Your task to perform on an android device: What is the recent news? Image 0: 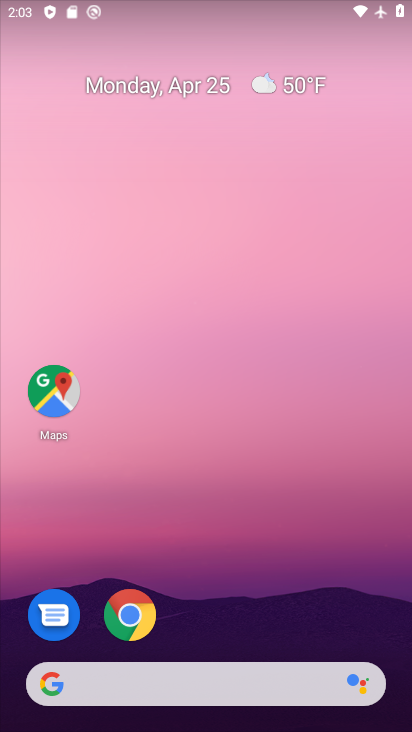
Step 0: drag from (250, 591) to (210, 3)
Your task to perform on an android device: What is the recent news? Image 1: 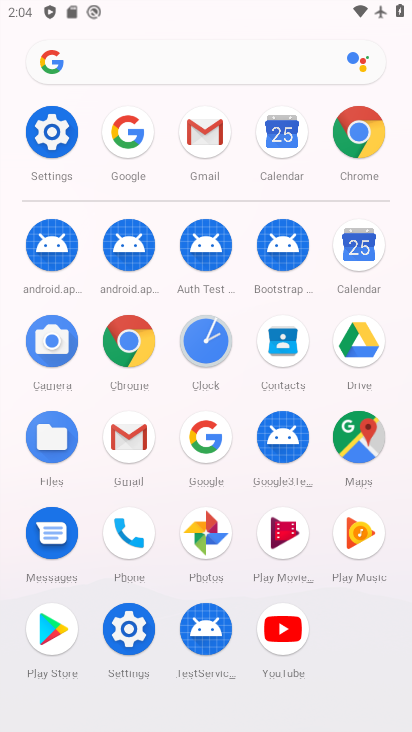
Step 1: click (126, 125)
Your task to perform on an android device: What is the recent news? Image 2: 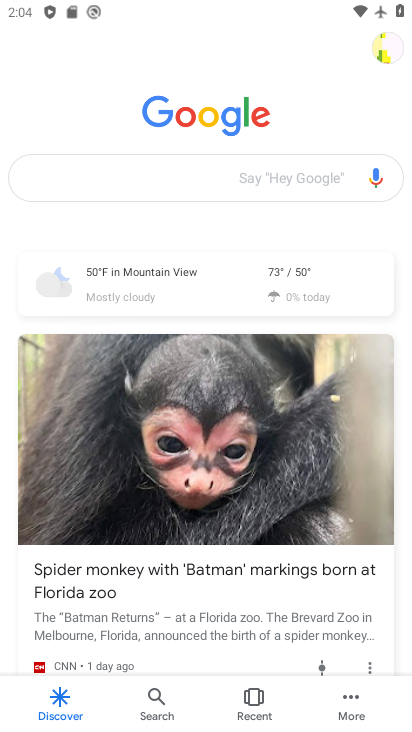
Step 2: click (167, 173)
Your task to perform on an android device: What is the recent news? Image 3: 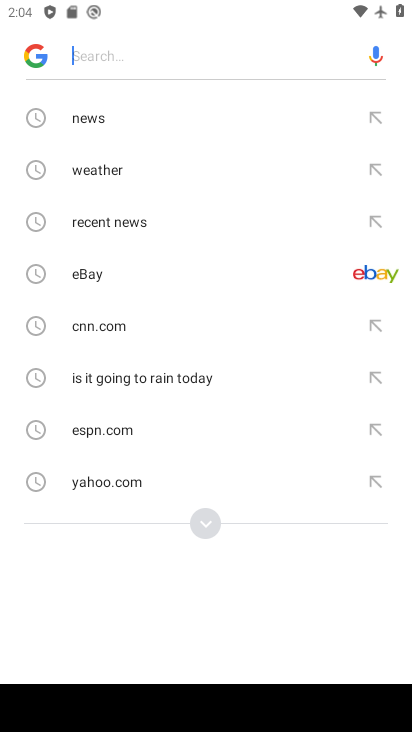
Step 3: click (133, 224)
Your task to perform on an android device: What is the recent news? Image 4: 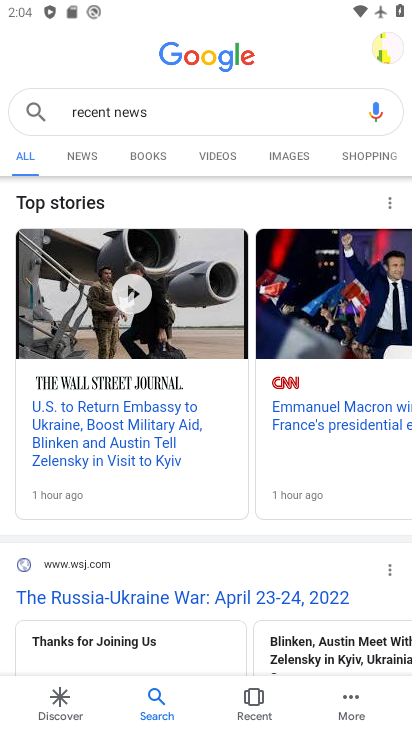
Step 4: task complete